Your task to perform on an android device: Go to settings Image 0: 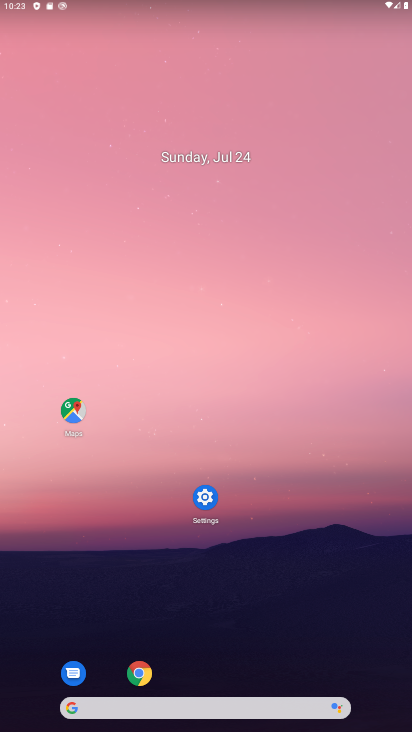
Step 0: click (312, 617)
Your task to perform on an android device: Go to settings Image 1: 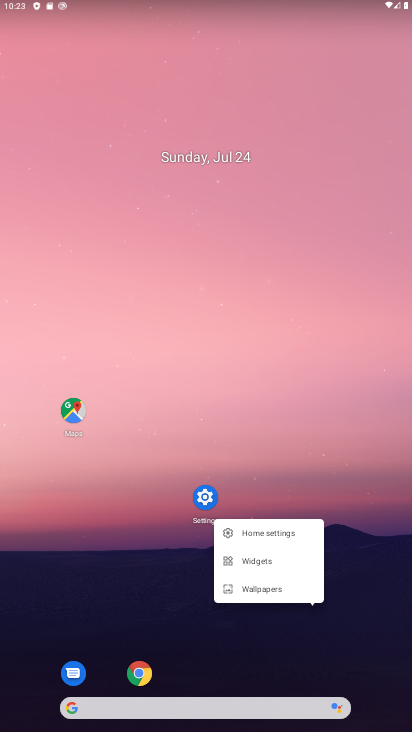
Step 1: click (316, 384)
Your task to perform on an android device: Go to settings Image 2: 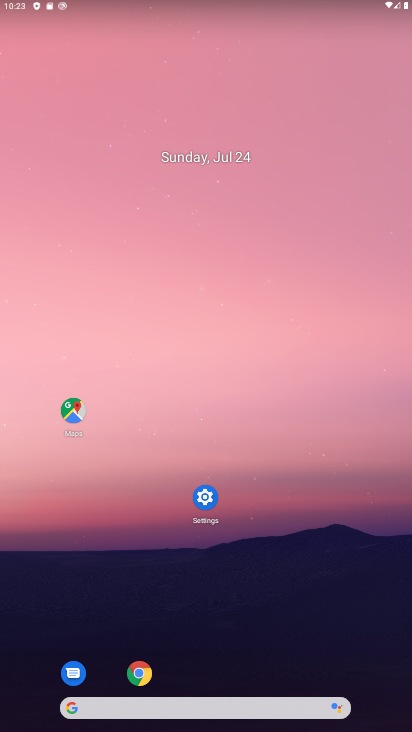
Step 2: click (199, 498)
Your task to perform on an android device: Go to settings Image 3: 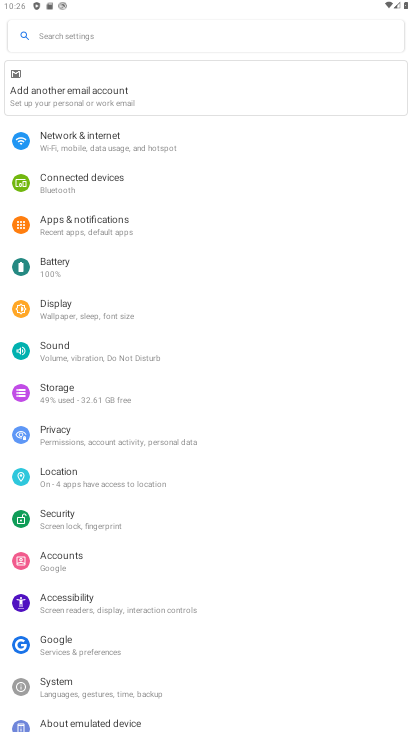
Step 3: task complete